Your task to perform on an android device: Search for pizza restaurants on Maps Image 0: 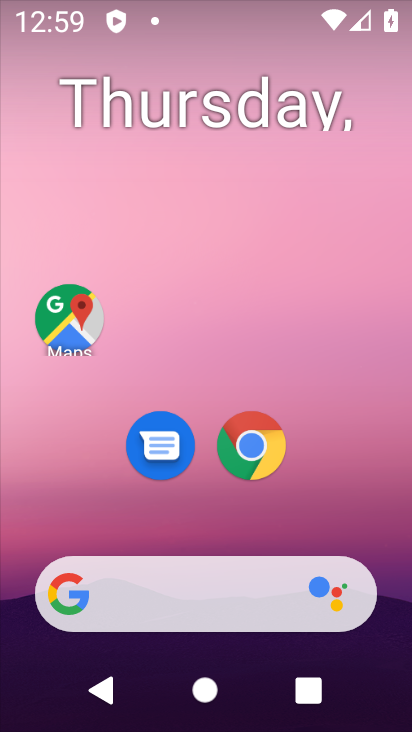
Step 0: click (57, 325)
Your task to perform on an android device: Search for pizza restaurants on Maps Image 1: 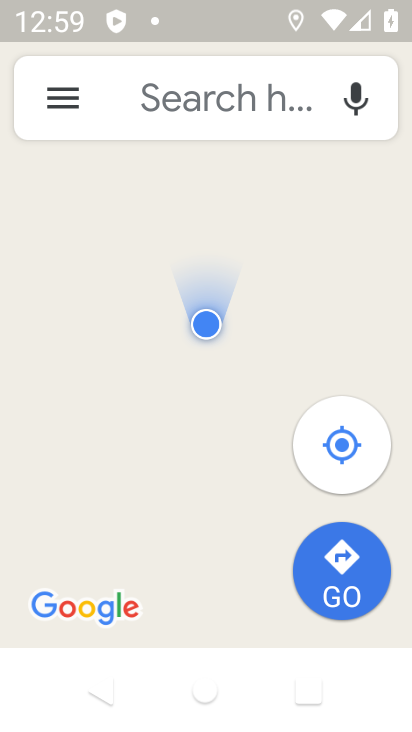
Step 1: click (240, 117)
Your task to perform on an android device: Search for pizza restaurants on Maps Image 2: 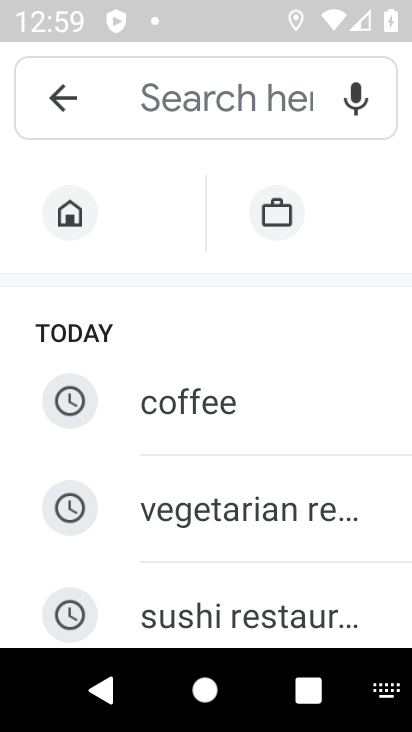
Step 2: type "Pizza restaurants "
Your task to perform on an android device: Search for pizza restaurants on Maps Image 3: 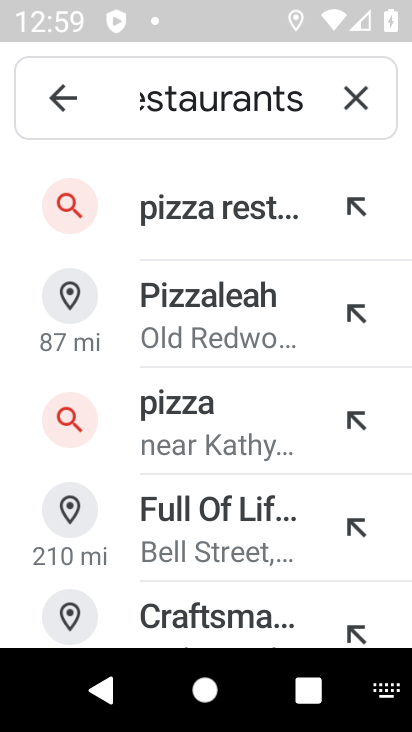
Step 3: click (220, 205)
Your task to perform on an android device: Search for pizza restaurants on Maps Image 4: 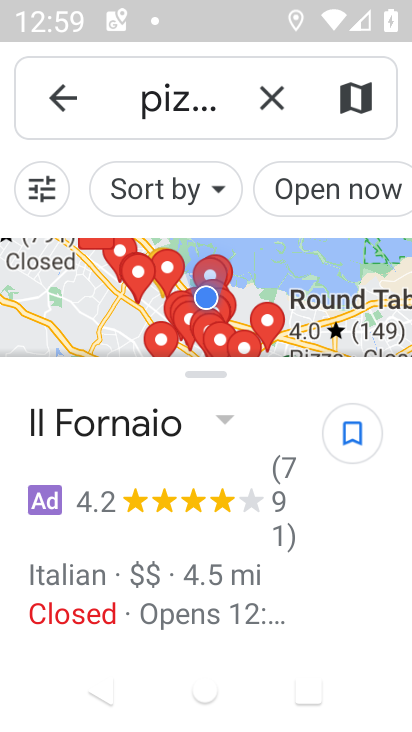
Step 4: task complete